Your task to perform on an android device: refresh tabs in the chrome app Image 0: 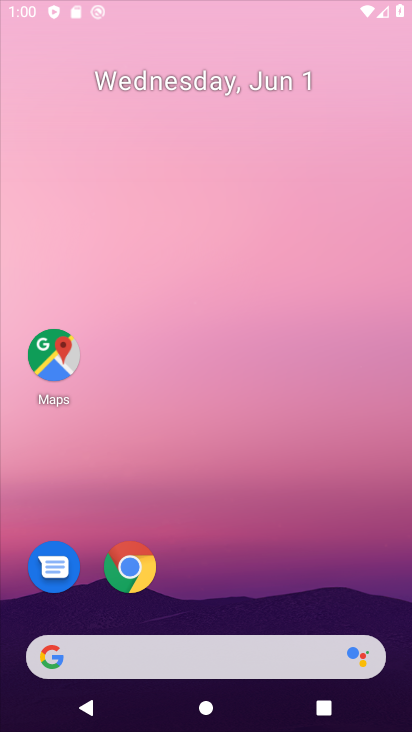
Step 0: drag from (23, 565) to (407, 399)
Your task to perform on an android device: refresh tabs in the chrome app Image 1: 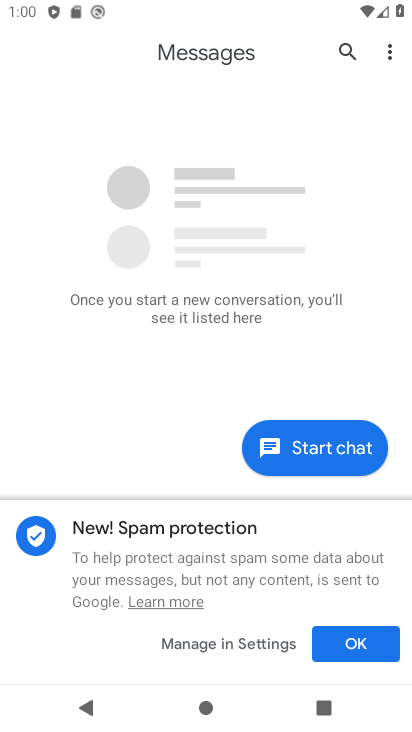
Step 1: press home button
Your task to perform on an android device: refresh tabs in the chrome app Image 2: 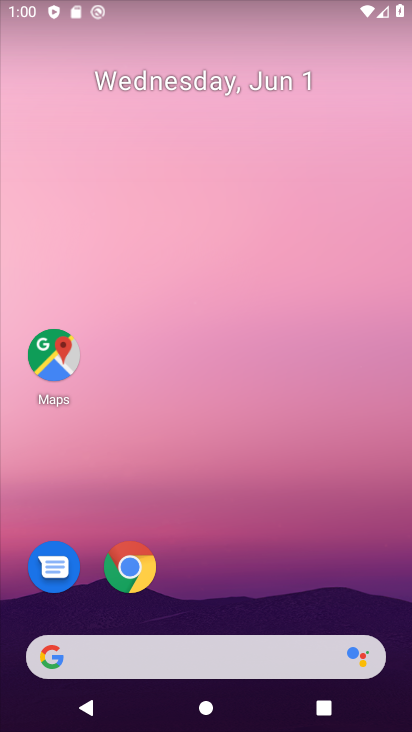
Step 2: click (139, 569)
Your task to perform on an android device: refresh tabs in the chrome app Image 3: 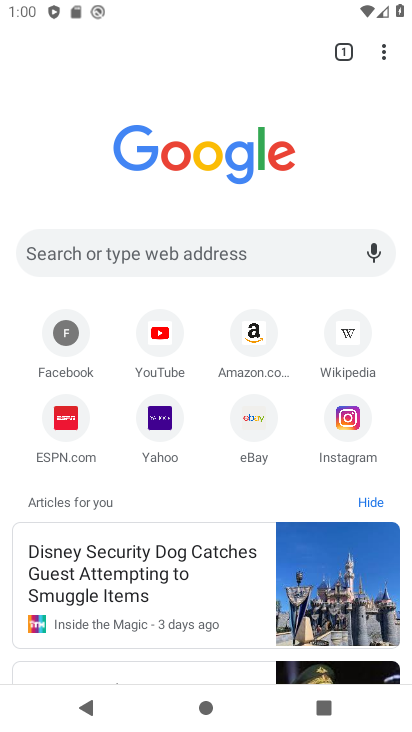
Step 3: click (391, 45)
Your task to perform on an android device: refresh tabs in the chrome app Image 4: 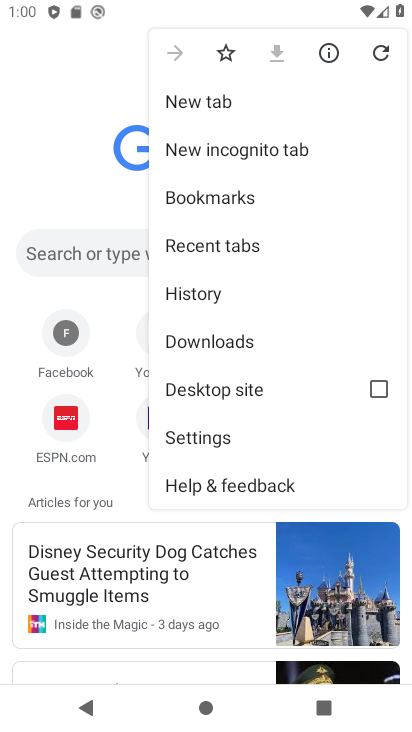
Step 4: click (391, 45)
Your task to perform on an android device: refresh tabs in the chrome app Image 5: 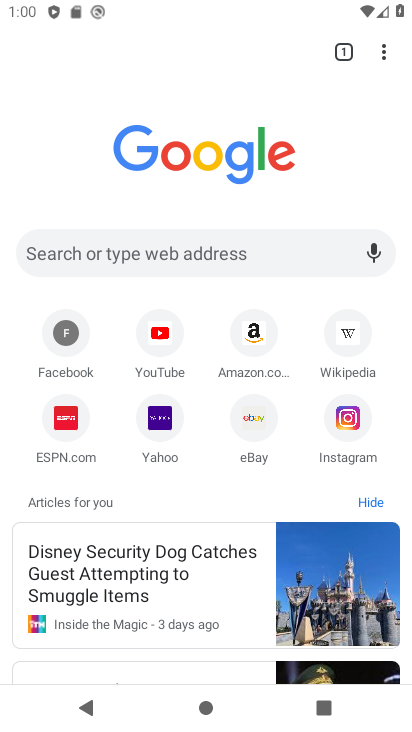
Step 5: task complete